Your task to perform on an android device: Open Chrome and go to settings Image 0: 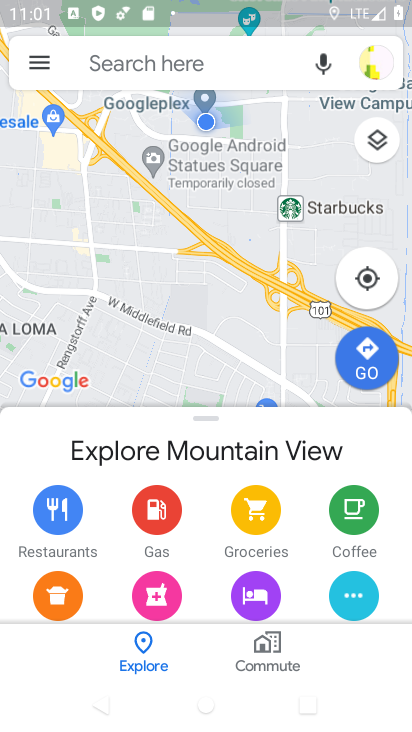
Step 0: press home button
Your task to perform on an android device: Open Chrome and go to settings Image 1: 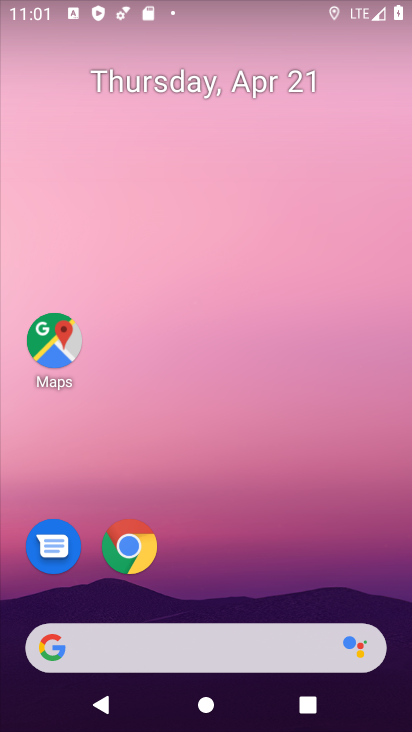
Step 1: click (128, 543)
Your task to perform on an android device: Open Chrome and go to settings Image 2: 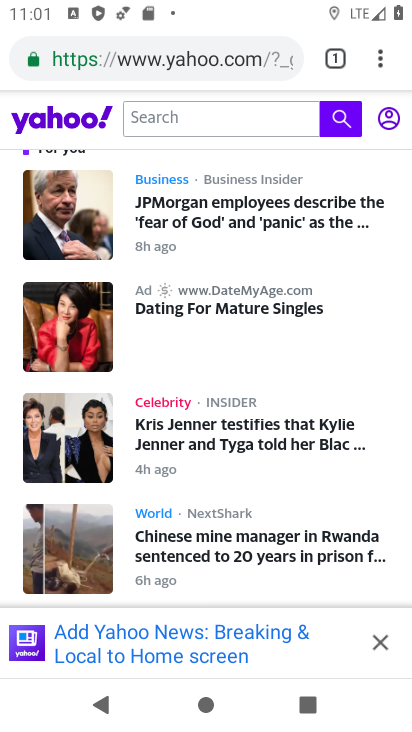
Step 2: click (375, 64)
Your task to perform on an android device: Open Chrome and go to settings Image 3: 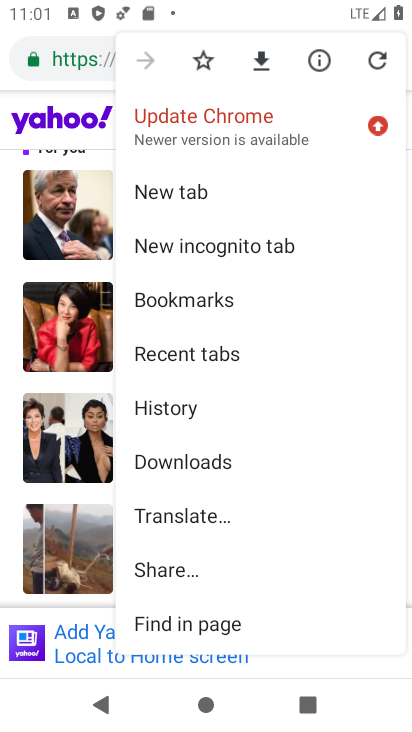
Step 3: drag from (275, 584) to (291, 301)
Your task to perform on an android device: Open Chrome and go to settings Image 4: 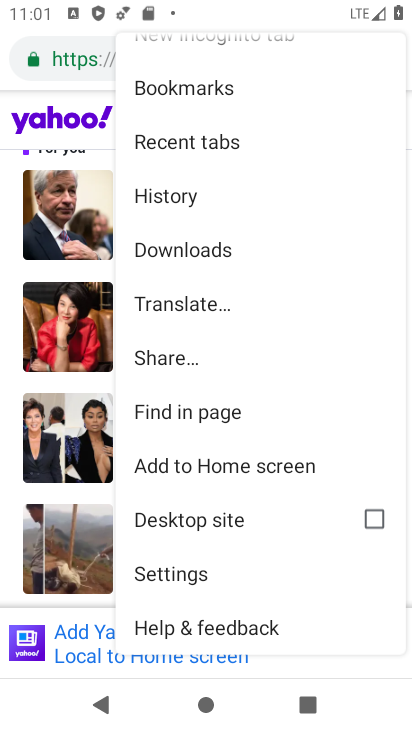
Step 4: click (159, 576)
Your task to perform on an android device: Open Chrome and go to settings Image 5: 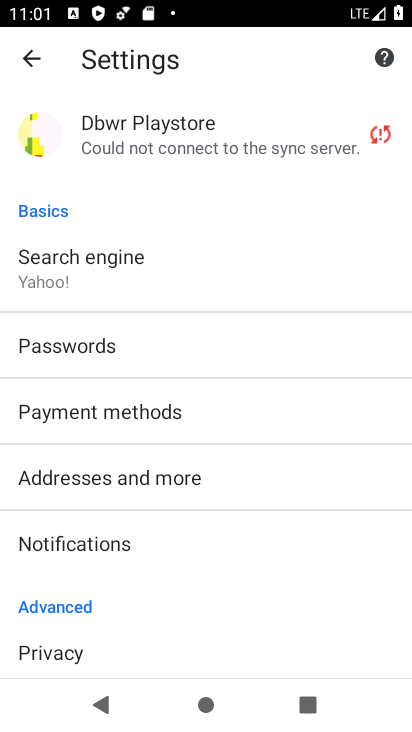
Step 5: task complete